Your task to perform on an android device: Do I have any events today? Image 0: 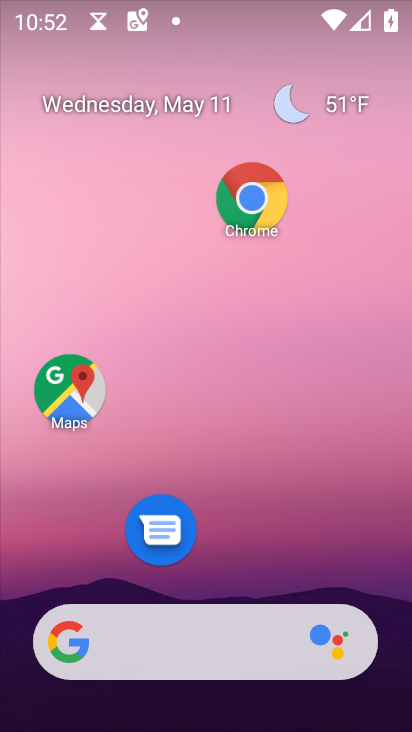
Step 0: drag from (240, 577) to (176, 108)
Your task to perform on an android device: Do I have any events today? Image 1: 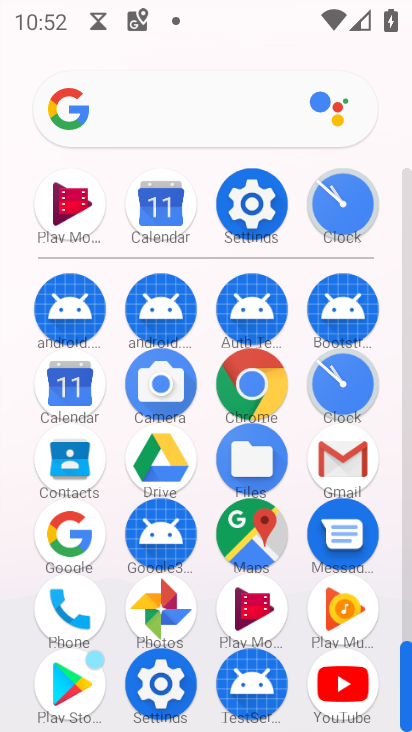
Step 1: click (65, 415)
Your task to perform on an android device: Do I have any events today? Image 2: 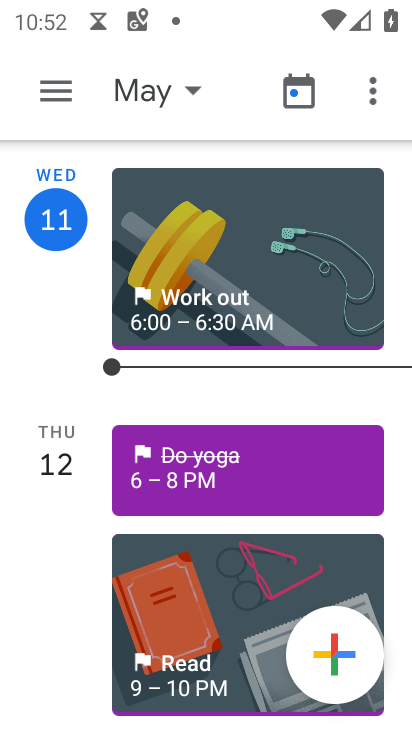
Step 2: task complete